Your task to perform on an android device: open app "Facebook Lite" (install if not already installed) Image 0: 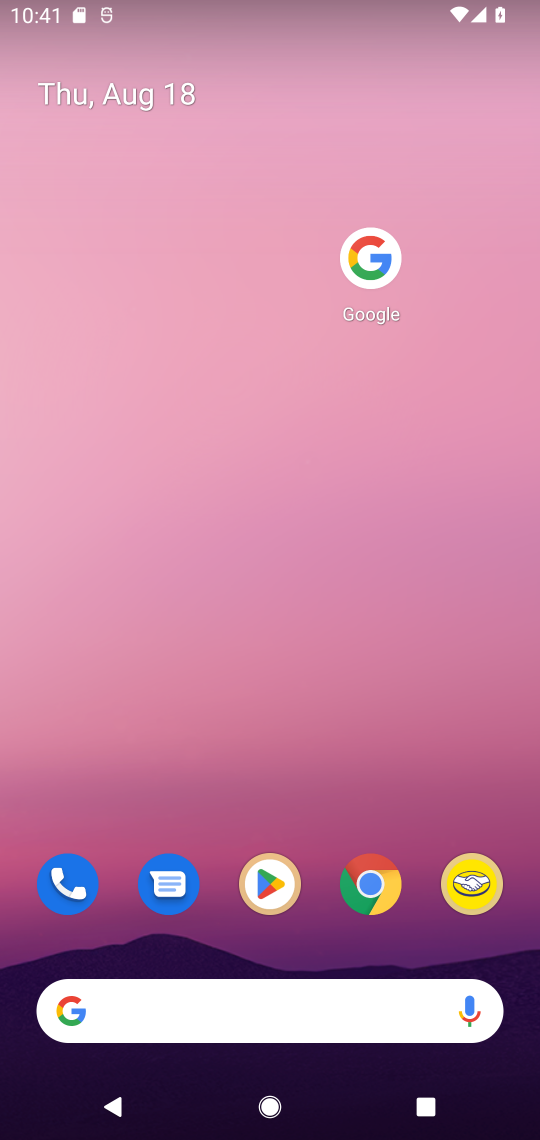
Step 0: click (271, 873)
Your task to perform on an android device: open app "Facebook Lite" (install if not already installed) Image 1: 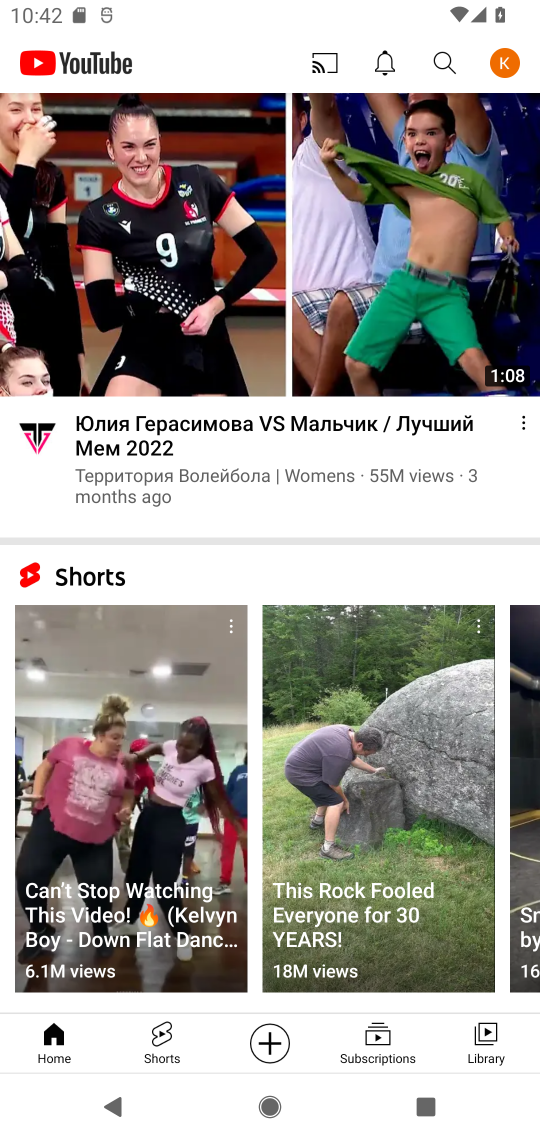
Step 1: press home button
Your task to perform on an android device: open app "Facebook Lite" (install if not already installed) Image 2: 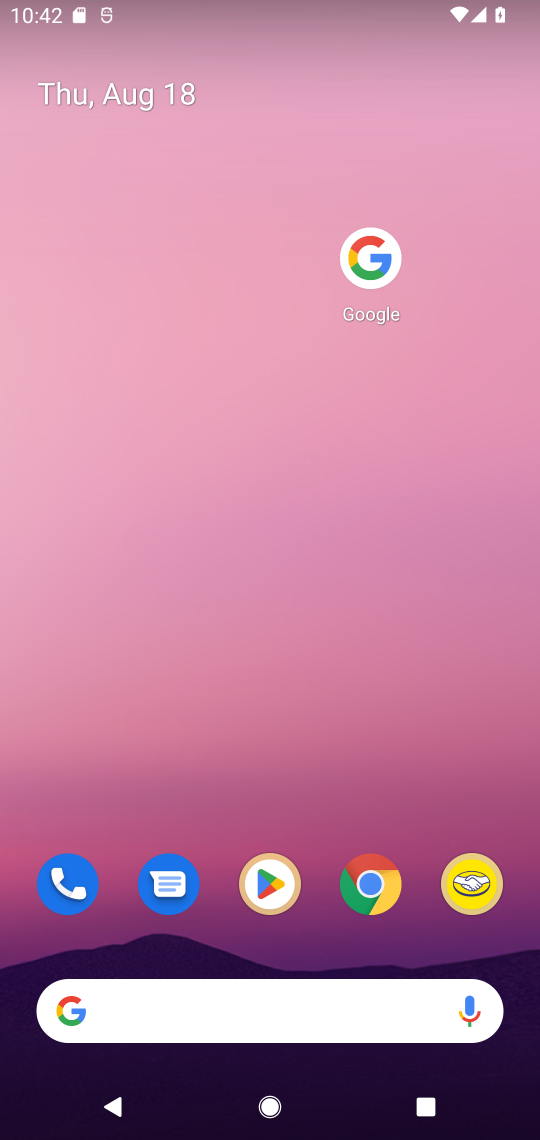
Step 2: click (253, 895)
Your task to perform on an android device: open app "Facebook Lite" (install if not already installed) Image 3: 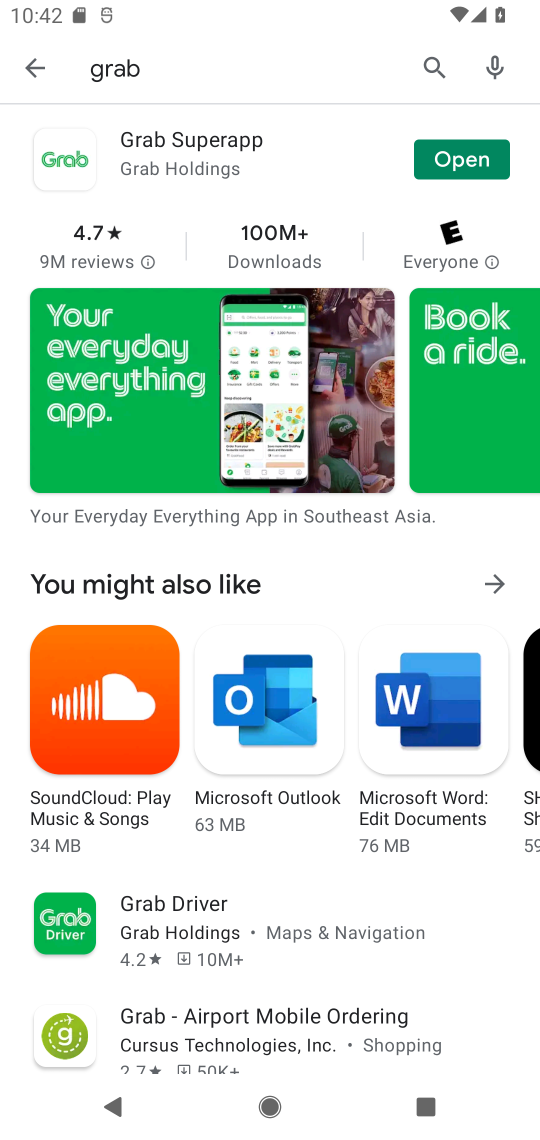
Step 3: click (424, 58)
Your task to perform on an android device: open app "Facebook Lite" (install if not already installed) Image 4: 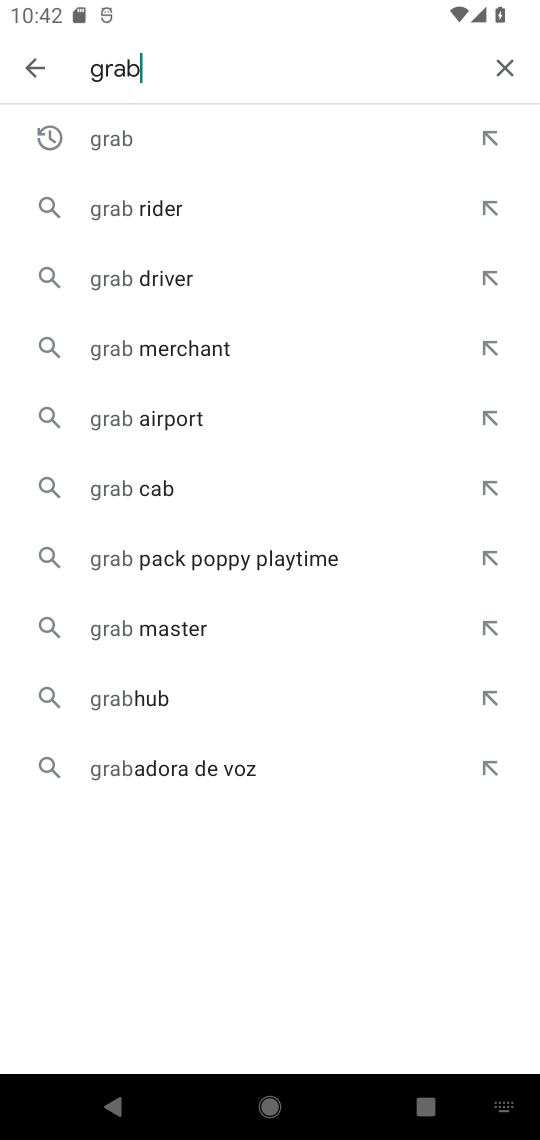
Step 4: click (492, 69)
Your task to perform on an android device: open app "Facebook Lite" (install if not already installed) Image 5: 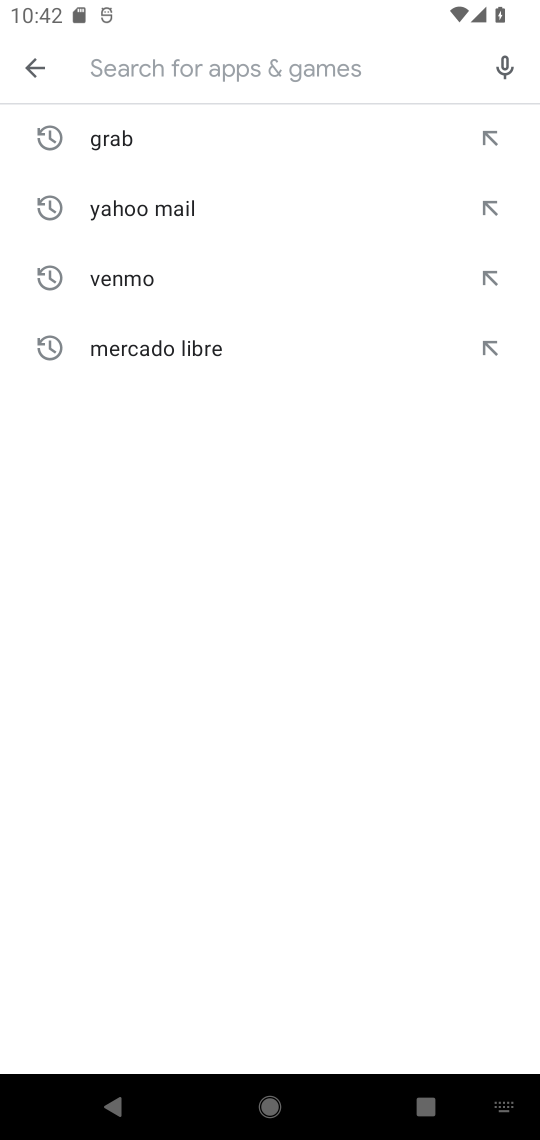
Step 5: type "facebook"
Your task to perform on an android device: open app "Facebook Lite" (install if not already installed) Image 6: 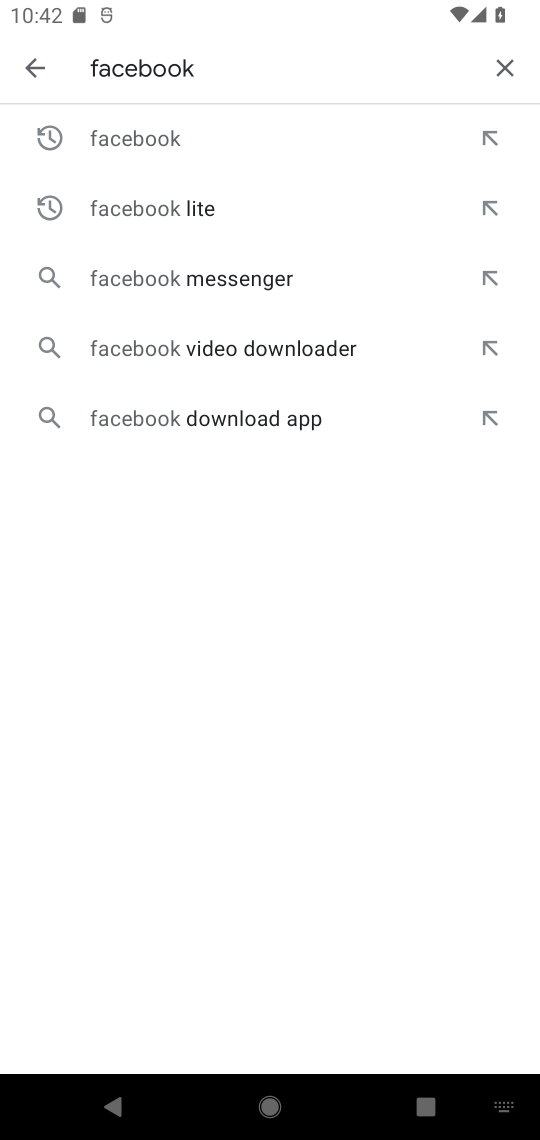
Step 6: click (230, 159)
Your task to perform on an android device: open app "Facebook Lite" (install if not already installed) Image 7: 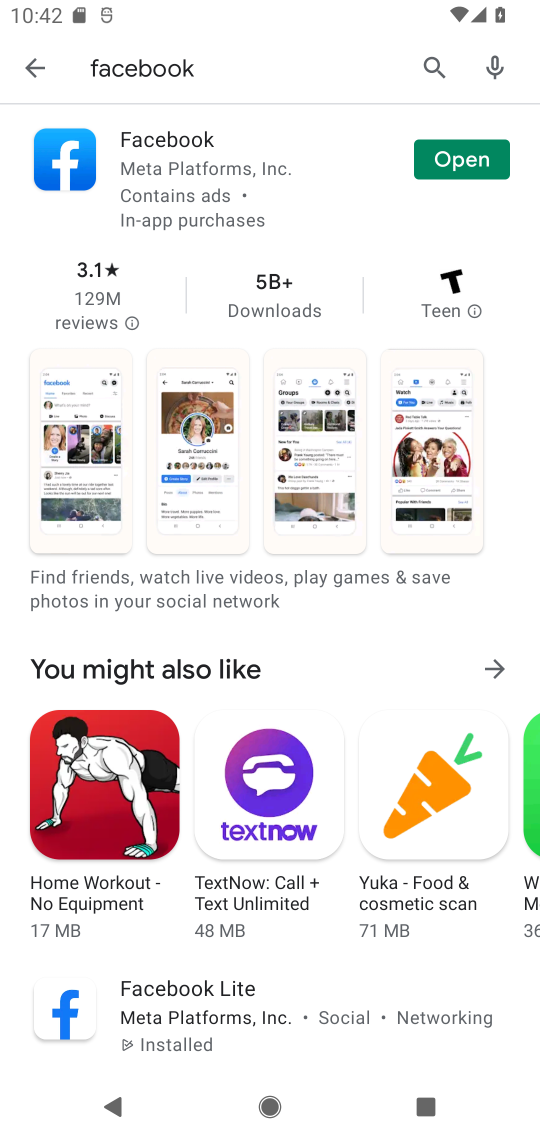
Step 7: click (477, 157)
Your task to perform on an android device: open app "Facebook Lite" (install if not already installed) Image 8: 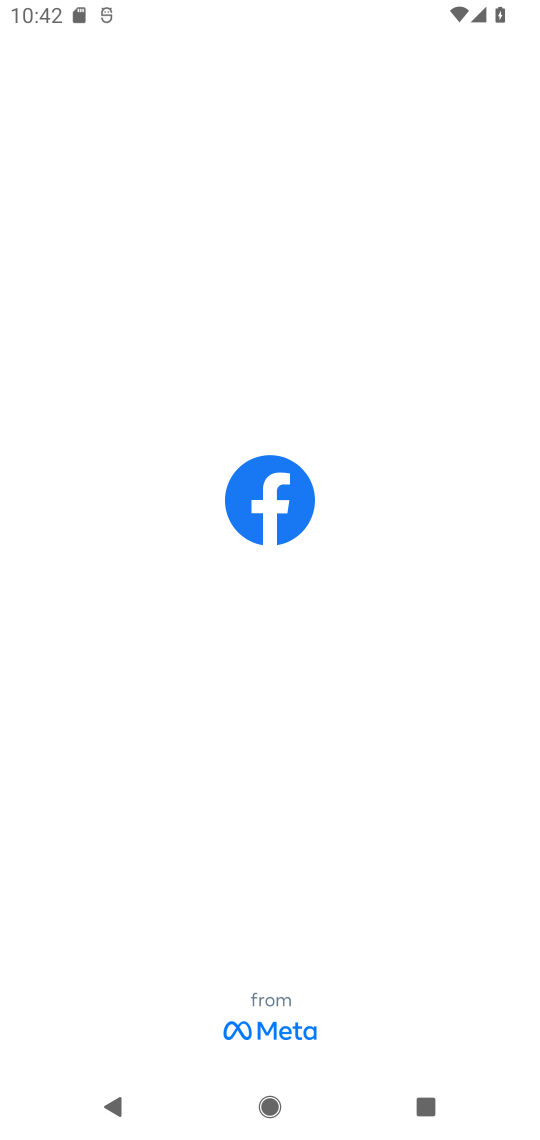
Step 8: click (477, 157)
Your task to perform on an android device: open app "Facebook Lite" (install if not already installed) Image 9: 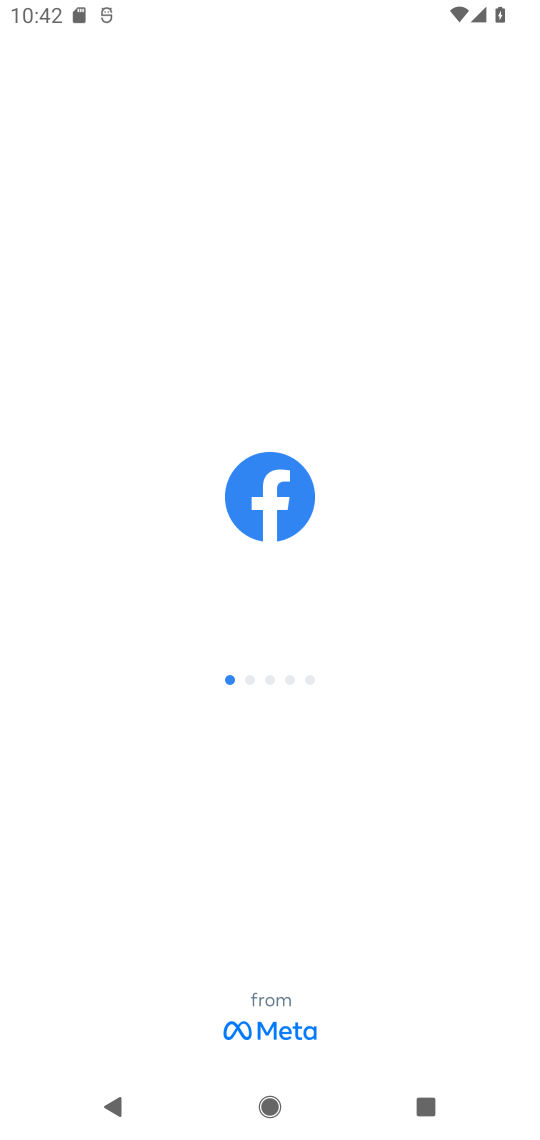
Step 9: task complete